Your task to perform on an android device: Open accessibility settings Image 0: 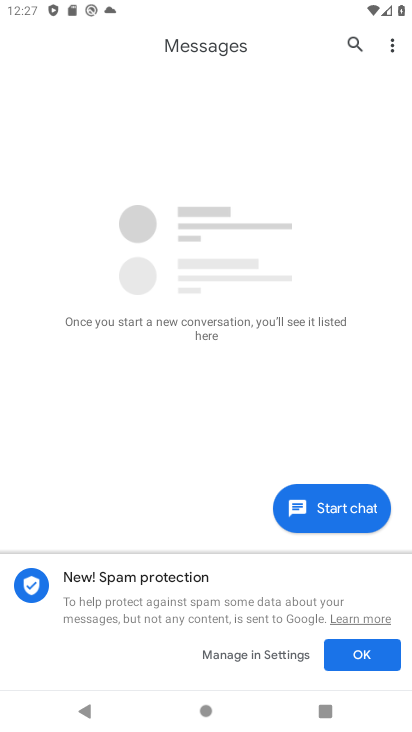
Step 0: press home button
Your task to perform on an android device: Open accessibility settings Image 1: 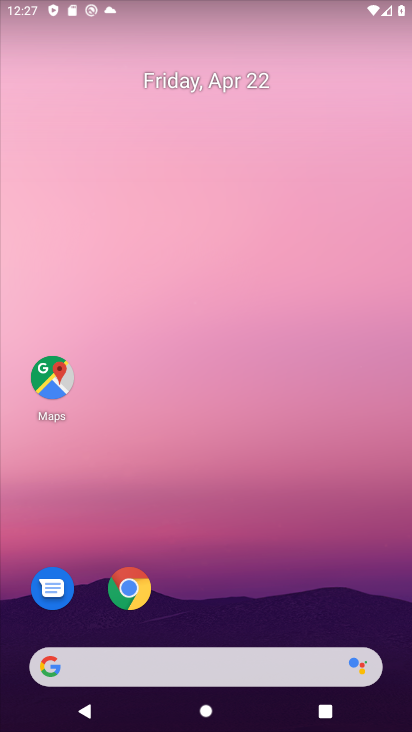
Step 1: drag from (266, 686) to (309, 125)
Your task to perform on an android device: Open accessibility settings Image 2: 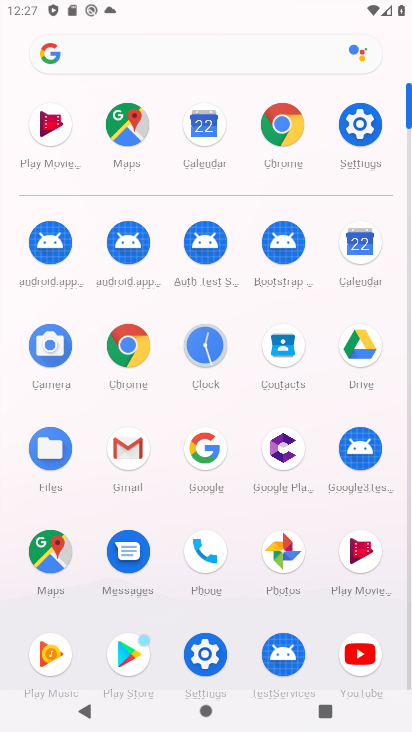
Step 2: click (350, 124)
Your task to perform on an android device: Open accessibility settings Image 3: 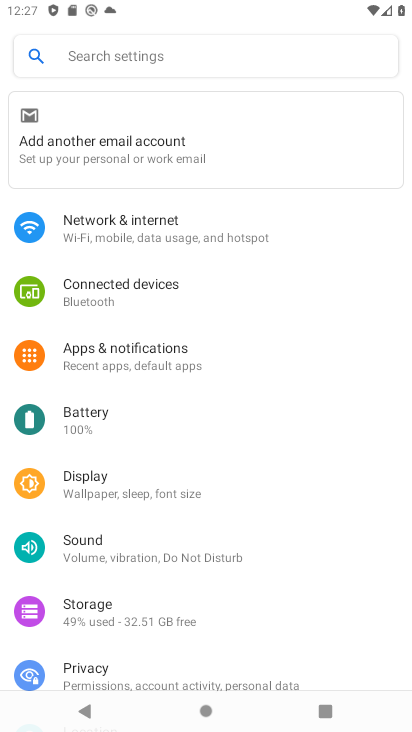
Step 3: click (152, 70)
Your task to perform on an android device: Open accessibility settings Image 4: 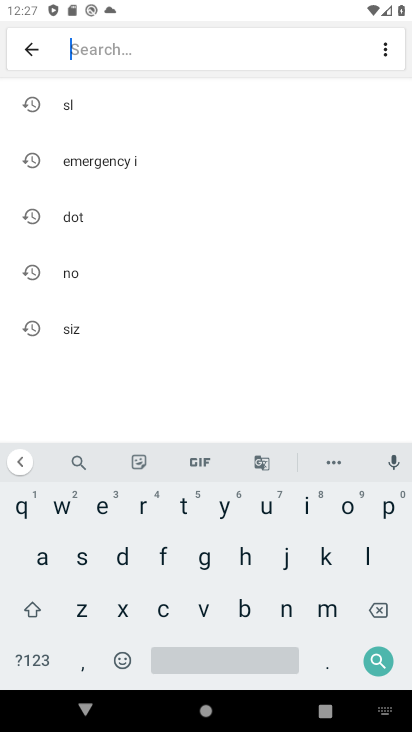
Step 4: click (39, 558)
Your task to perform on an android device: Open accessibility settings Image 5: 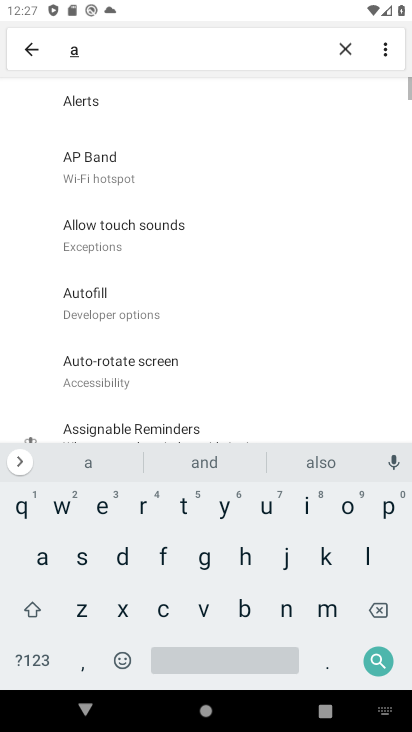
Step 5: click (157, 608)
Your task to perform on an android device: Open accessibility settings Image 6: 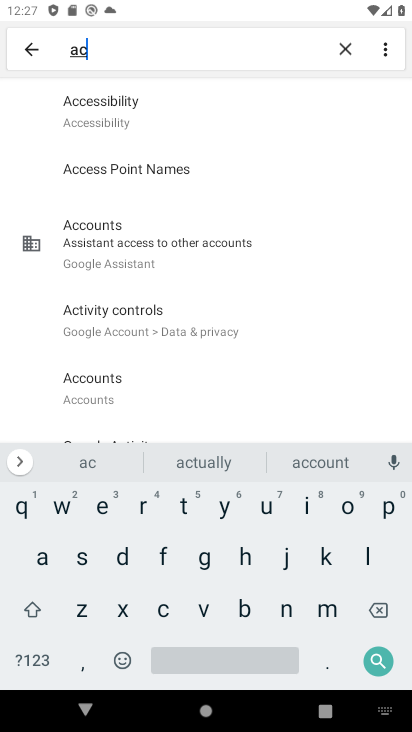
Step 6: click (137, 108)
Your task to perform on an android device: Open accessibility settings Image 7: 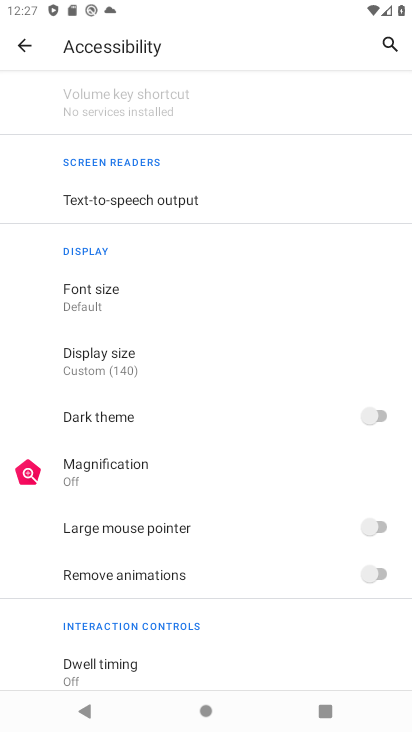
Step 7: task complete